Your task to perform on an android device: What's the news in China? Image 0: 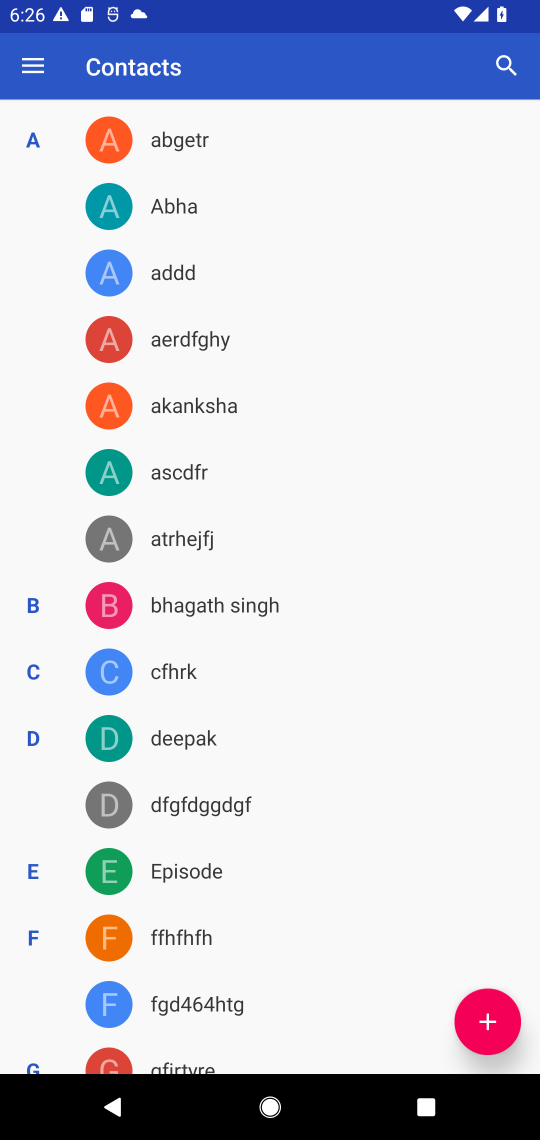
Step 0: press home button
Your task to perform on an android device: What's the news in China? Image 1: 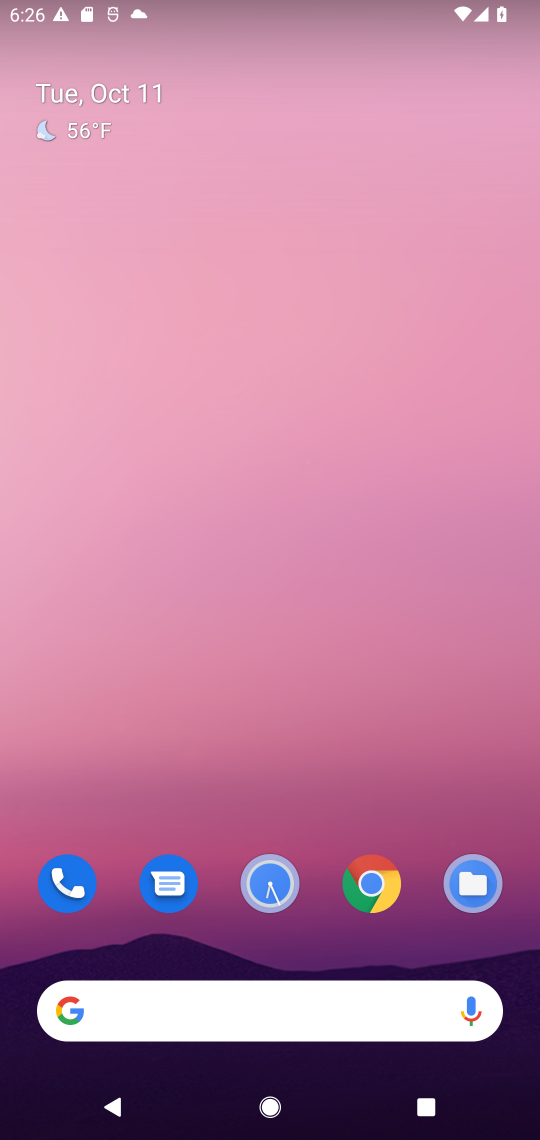
Step 1: drag from (309, 905) to (304, 0)
Your task to perform on an android device: What's the news in China? Image 2: 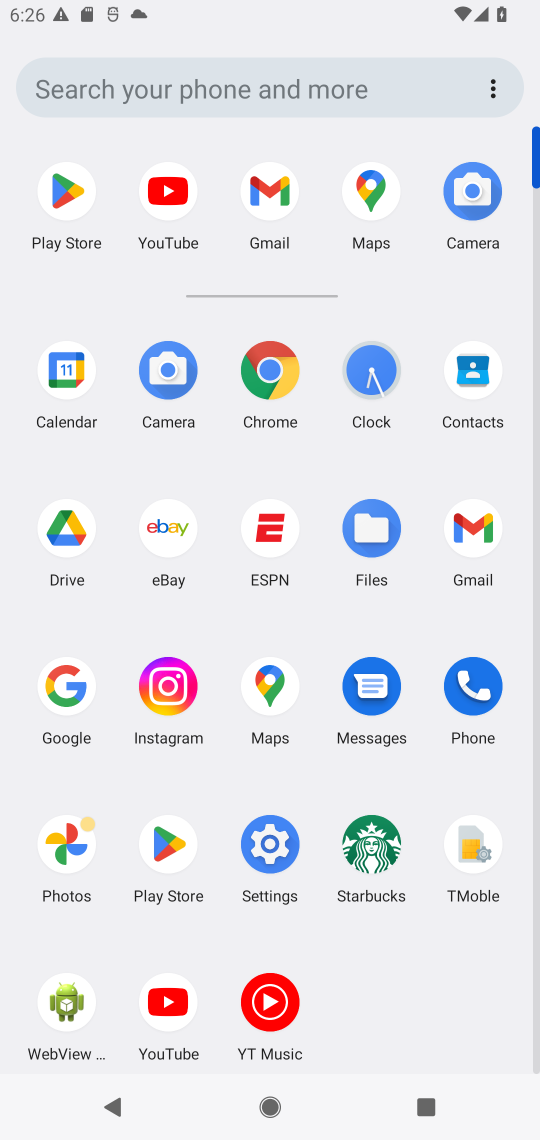
Step 2: click (263, 373)
Your task to perform on an android device: What's the news in China? Image 3: 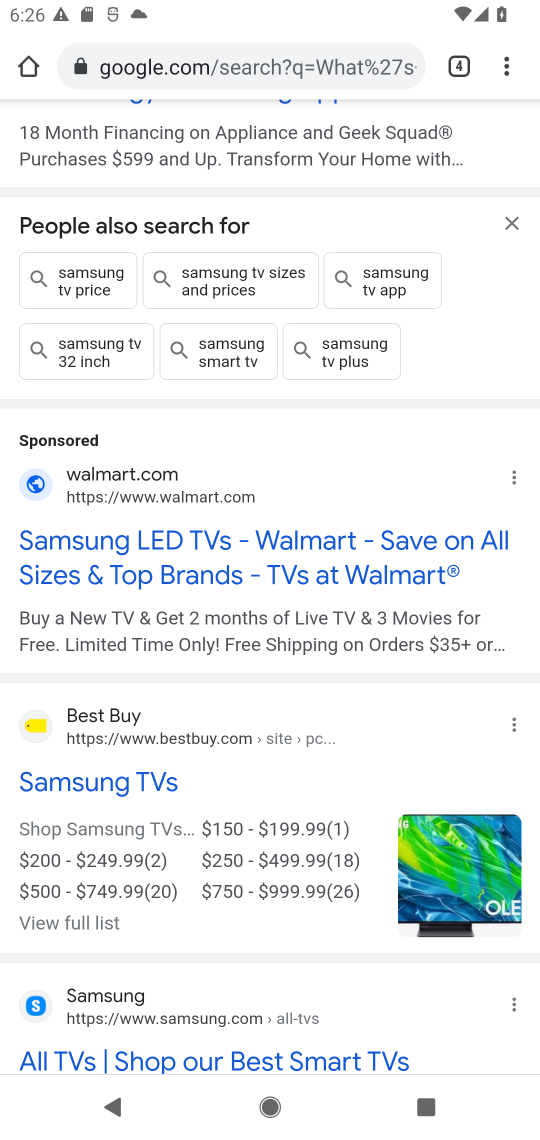
Step 3: click (294, 63)
Your task to perform on an android device: What's the news in China? Image 4: 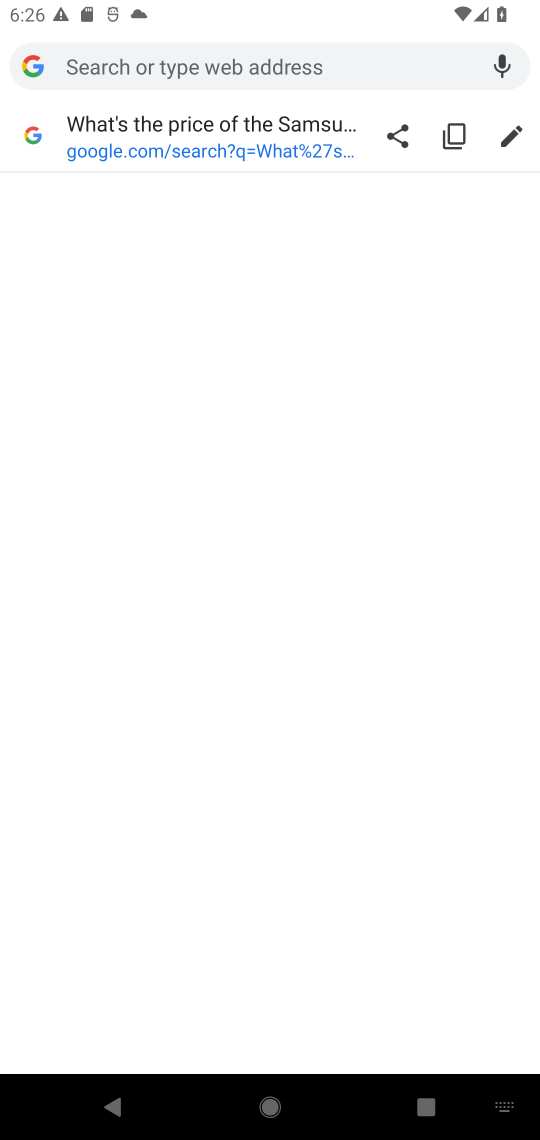
Step 4: type "What's the news in China?"
Your task to perform on an android device: What's the news in China? Image 5: 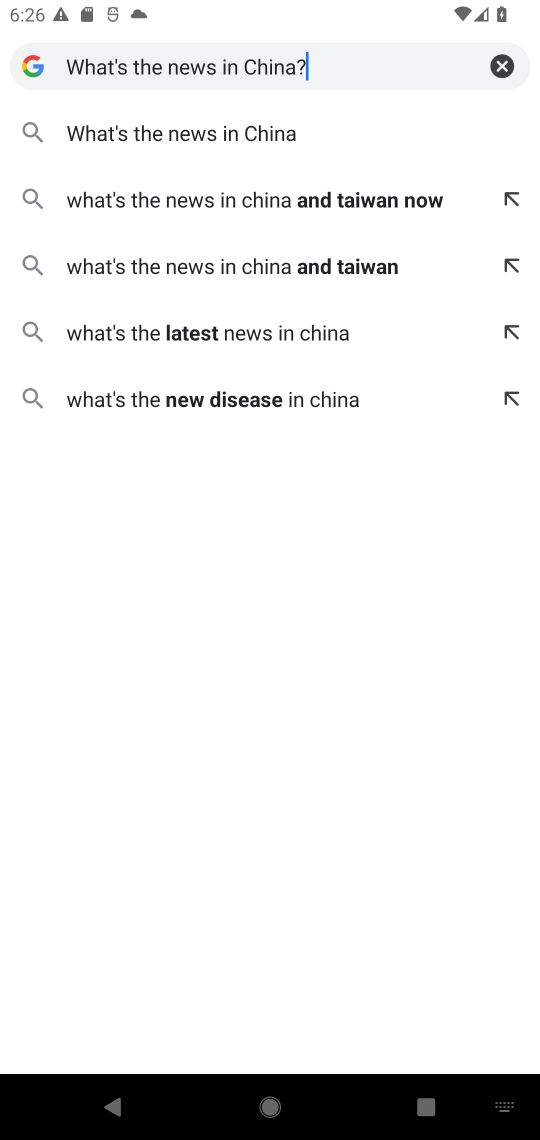
Step 5: press enter
Your task to perform on an android device: What's the news in China? Image 6: 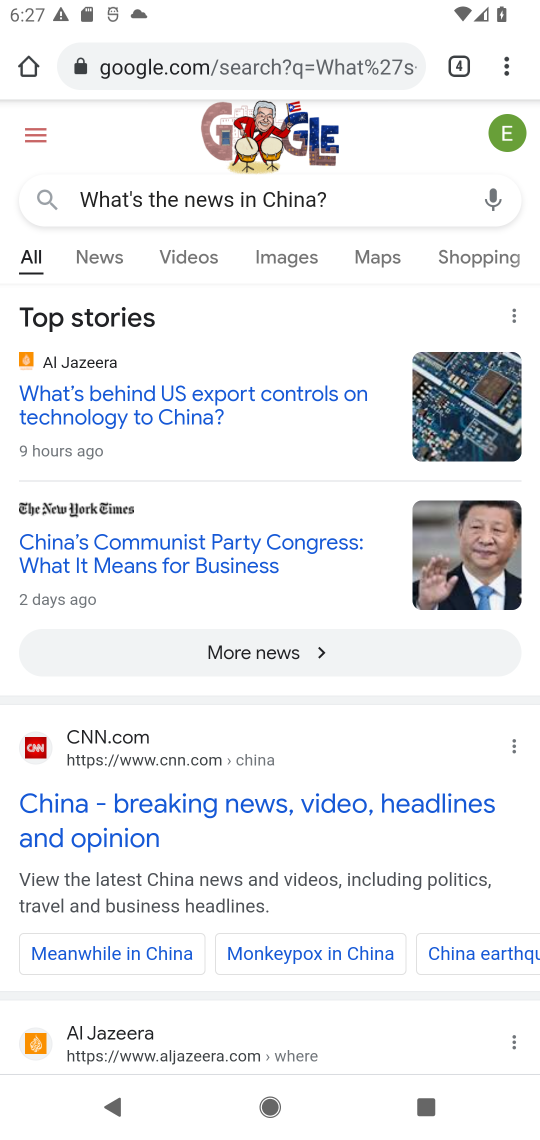
Step 6: click (246, 651)
Your task to perform on an android device: What's the news in China? Image 7: 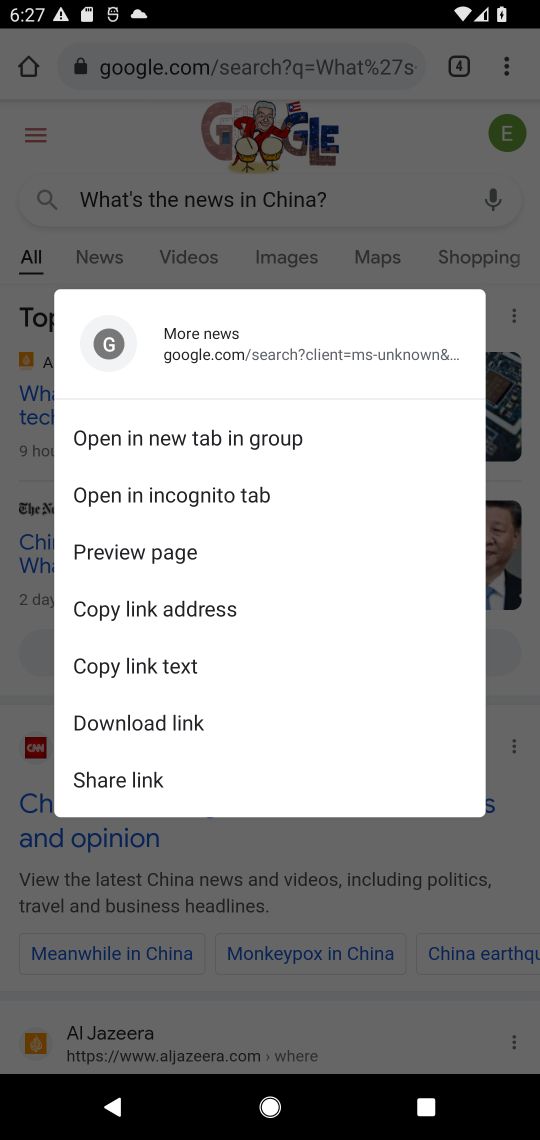
Step 7: click (330, 181)
Your task to perform on an android device: What's the news in China? Image 8: 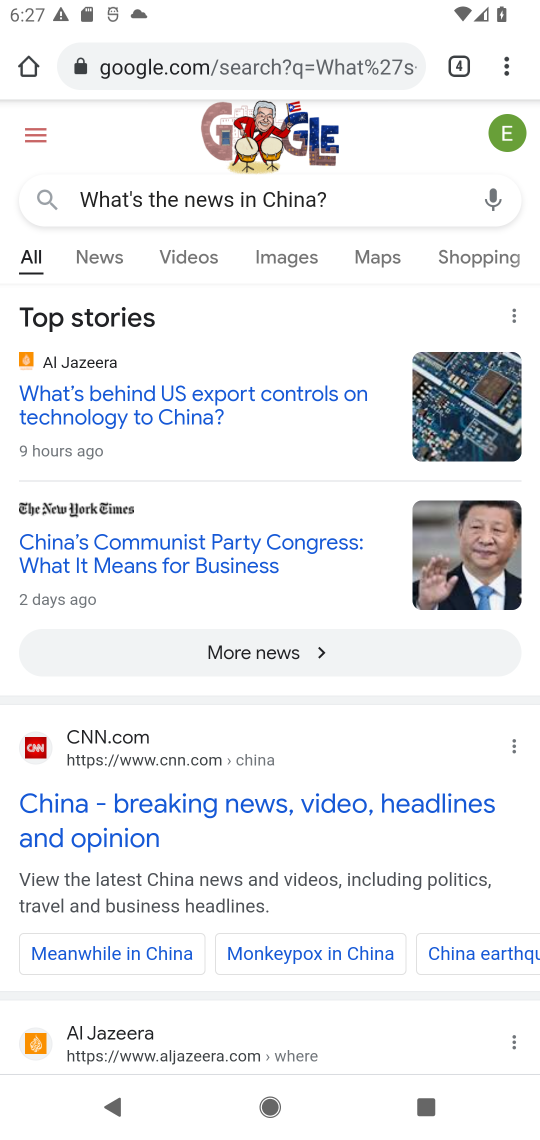
Step 8: click (286, 648)
Your task to perform on an android device: What's the news in China? Image 9: 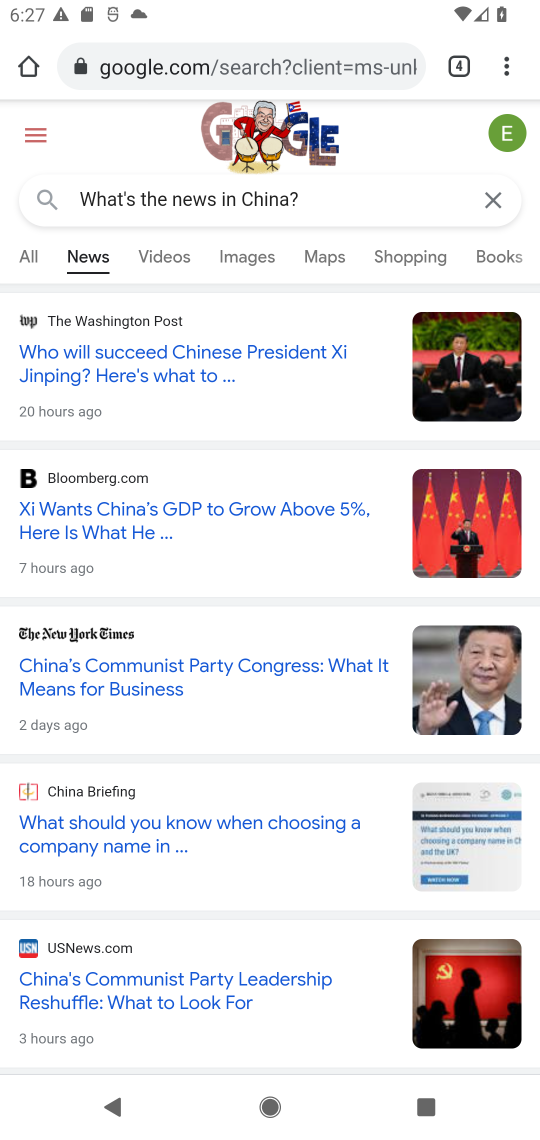
Step 9: task complete